Your task to perform on an android device: Open the phone app and click the voicemail tab. Image 0: 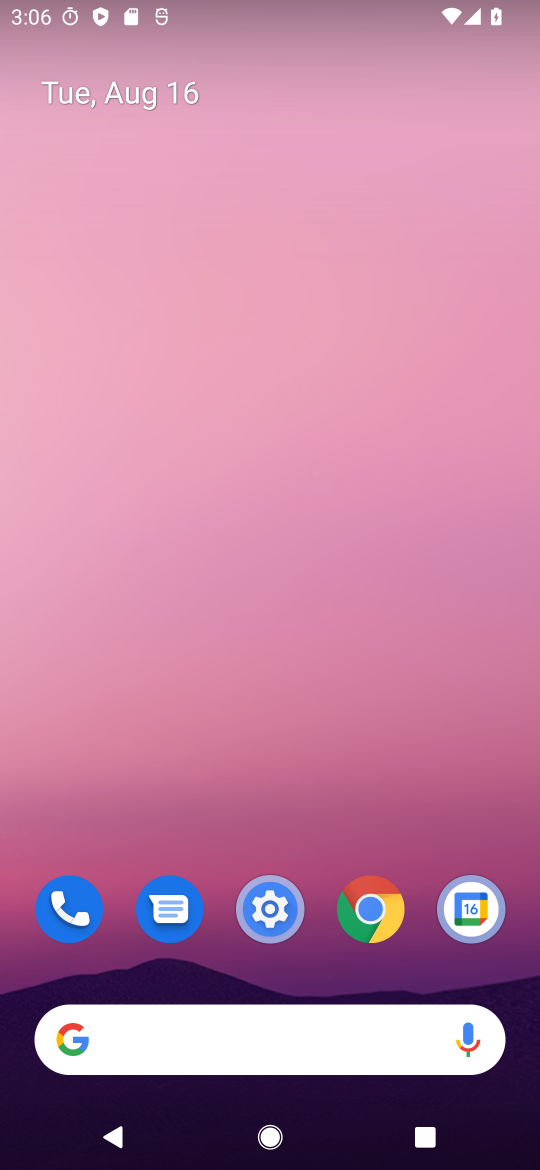
Step 0: drag from (223, 854) to (284, 176)
Your task to perform on an android device: Open the phone app and click the voicemail tab. Image 1: 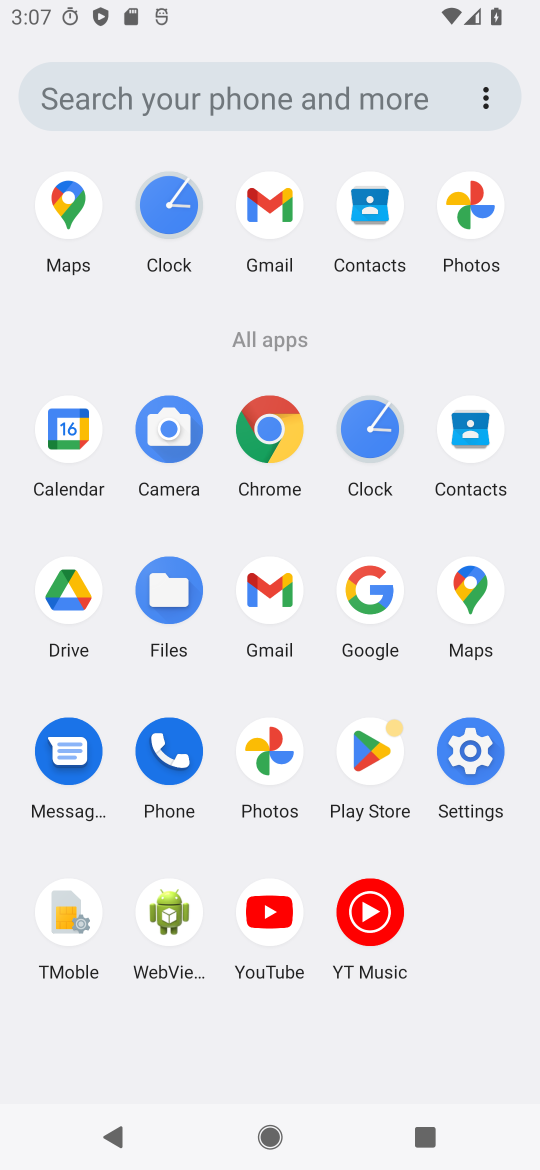
Step 1: click (158, 716)
Your task to perform on an android device: Open the phone app and click the voicemail tab. Image 2: 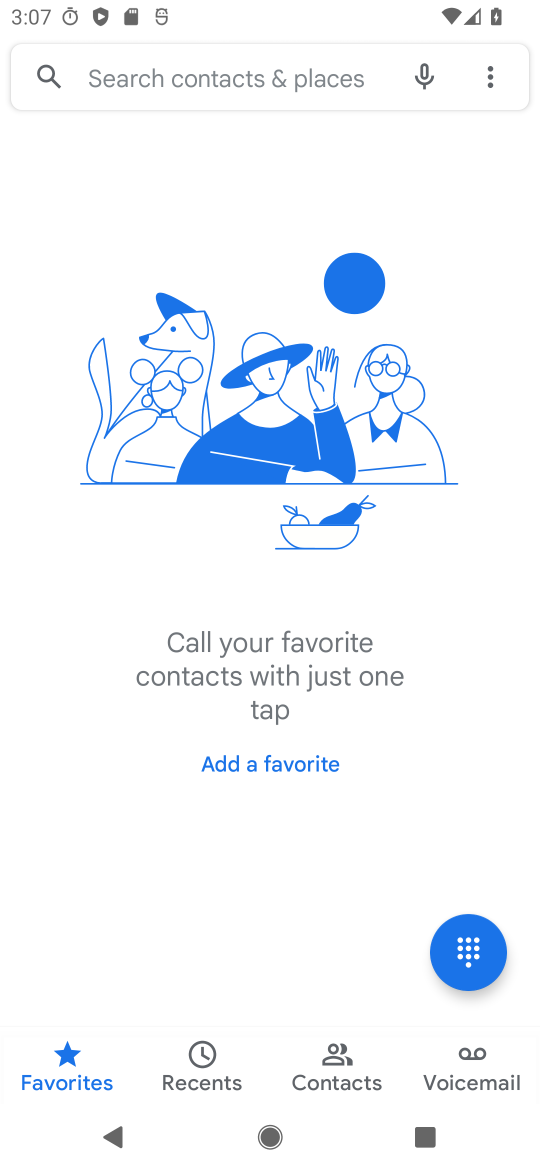
Step 2: click (485, 1086)
Your task to perform on an android device: Open the phone app and click the voicemail tab. Image 3: 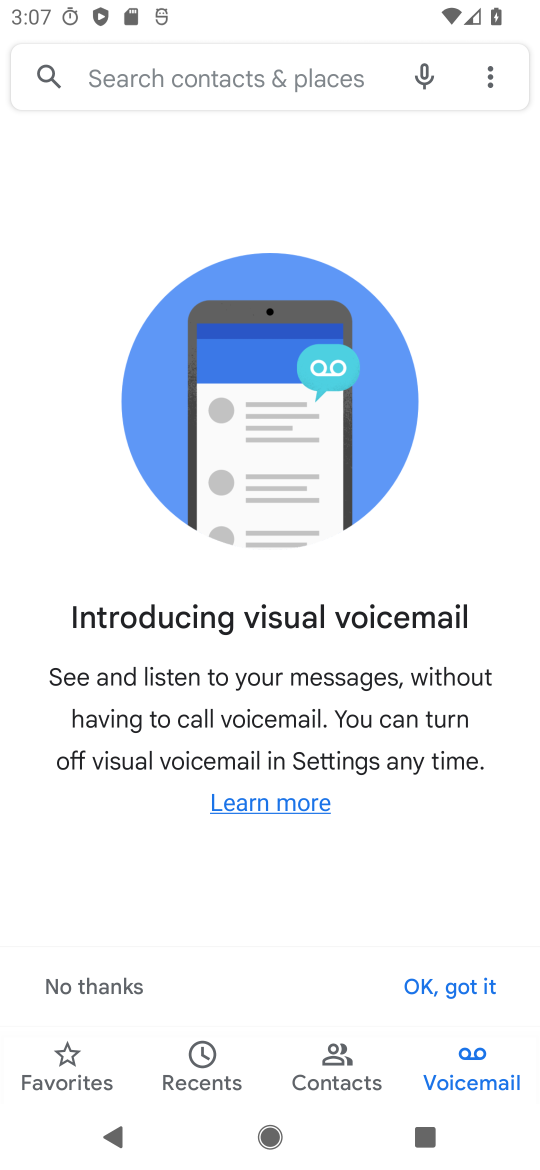
Step 3: task complete